Your task to perform on an android device: toggle airplane mode Image 0: 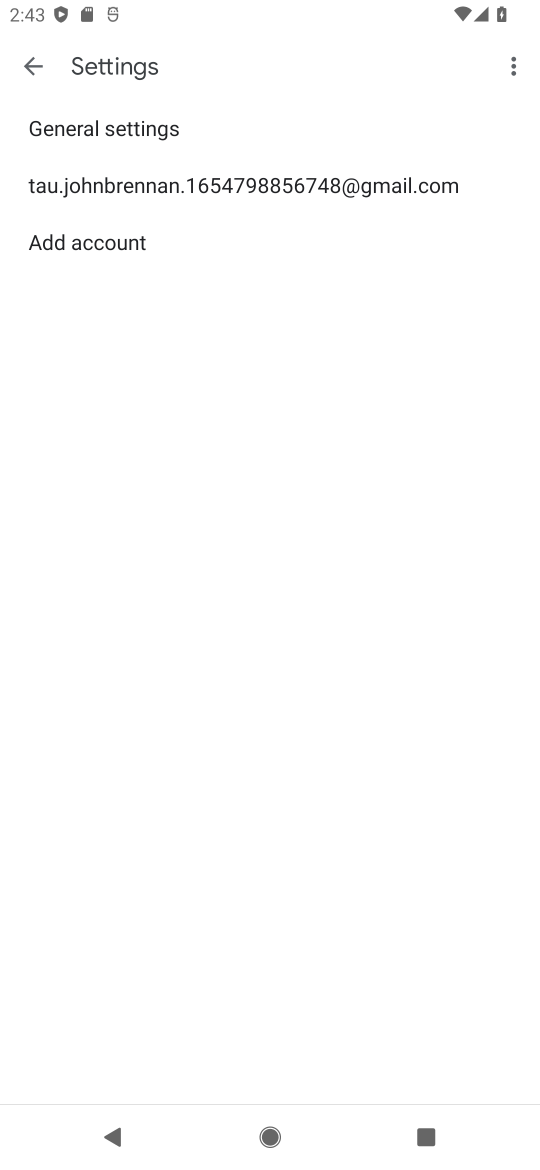
Step 0: press home button
Your task to perform on an android device: toggle airplane mode Image 1: 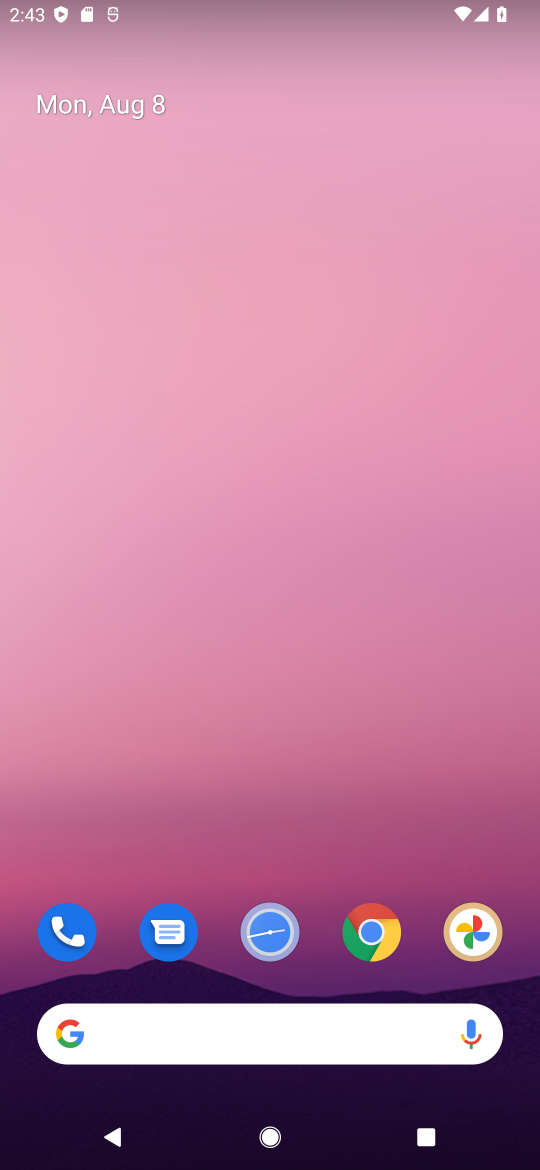
Step 1: drag from (316, 946) to (375, 107)
Your task to perform on an android device: toggle airplane mode Image 2: 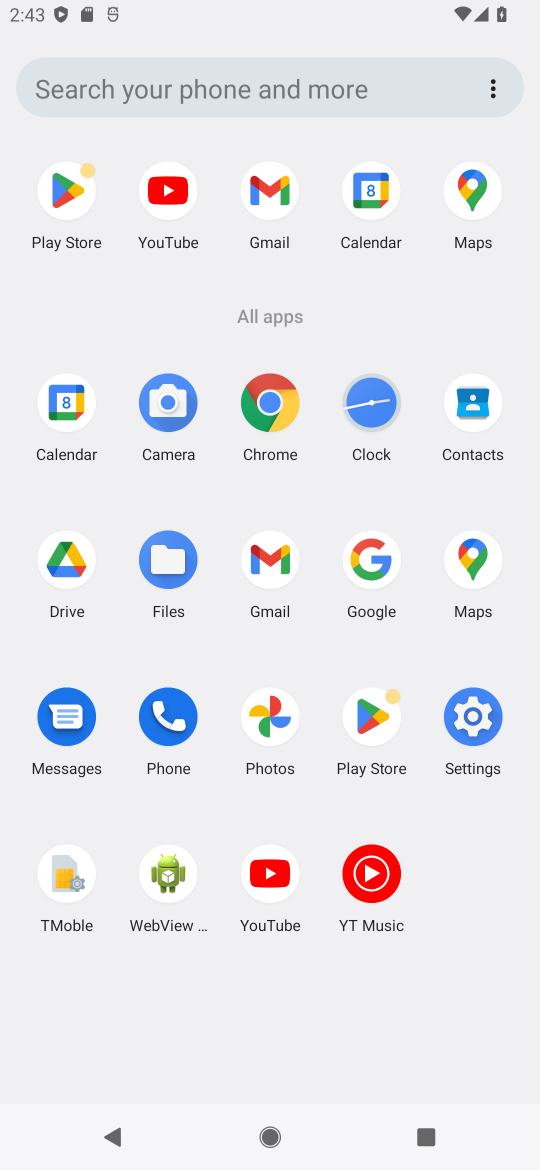
Step 2: click (481, 715)
Your task to perform on an android device: toggle airplane mode Image 3: 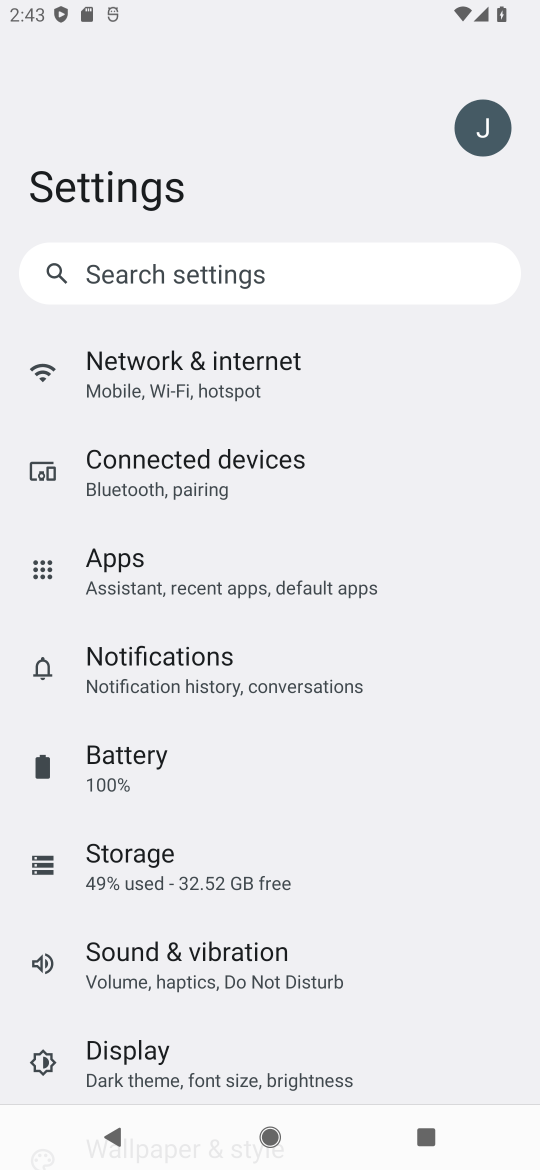
Step 3: click (203, 375)
Your task to perform on an android device: toggle airplane mode Image 4: 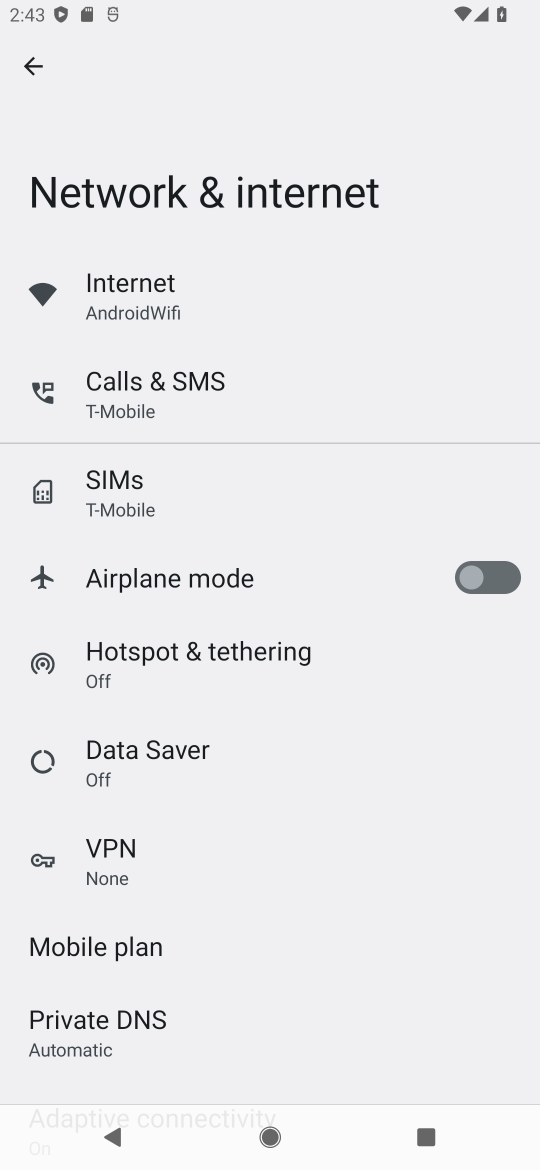
Step 4: click (518, 590)
Your task to perform on an android device: toggle airplane mode Image 5: 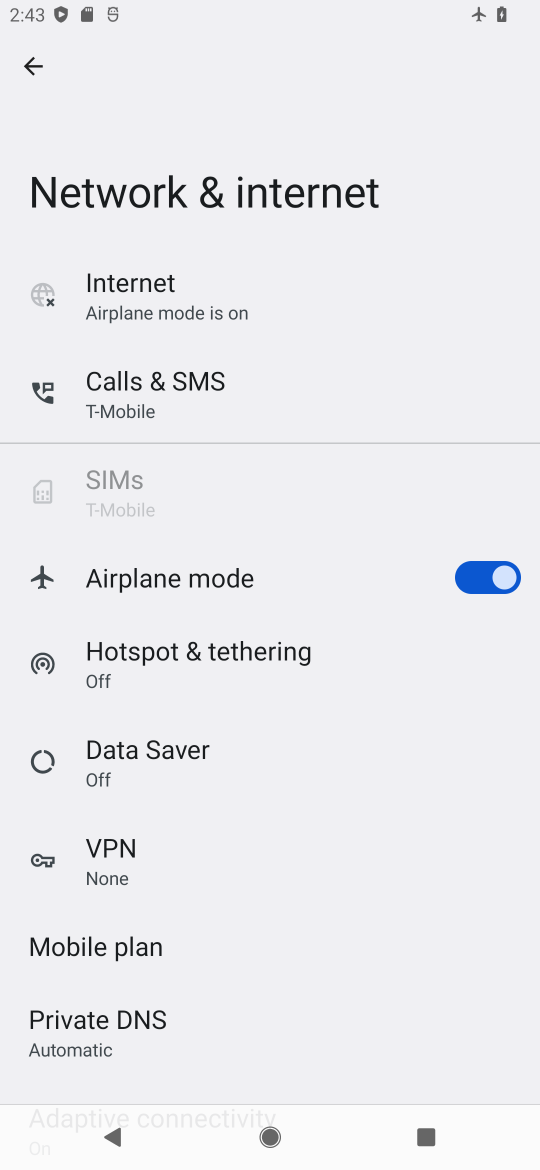
Step 5: task complete